Your task to perform on an android device: toggle airplane mode Image 0: 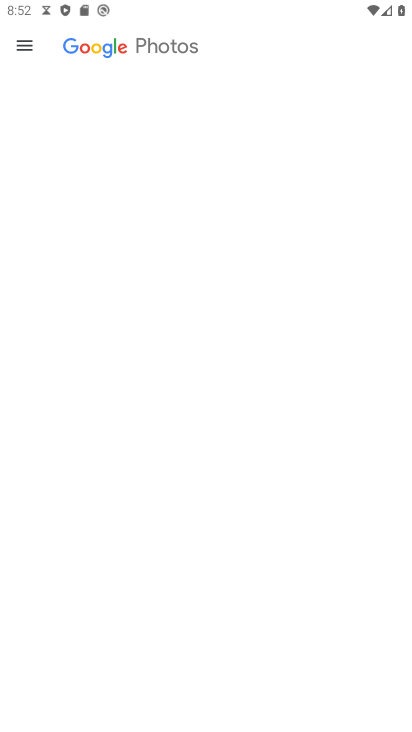
Step 0: drag from (240, 632) to (231, 322)
Your task to perform on an android device: toggle airplane mode Image 1: 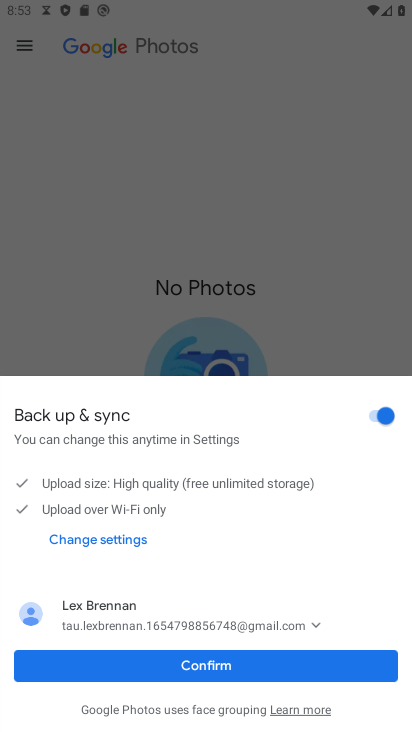
Step 1: press home button
Your task to perform on an android device: toggle airplane mode Image 2: 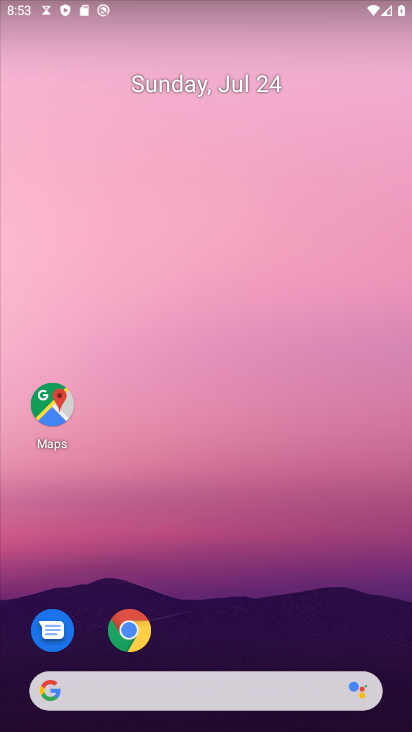
Step 2: drag from (251, 650) to (227, 110)
Your task to perform on an android device: toggle airplane mode Image 3: 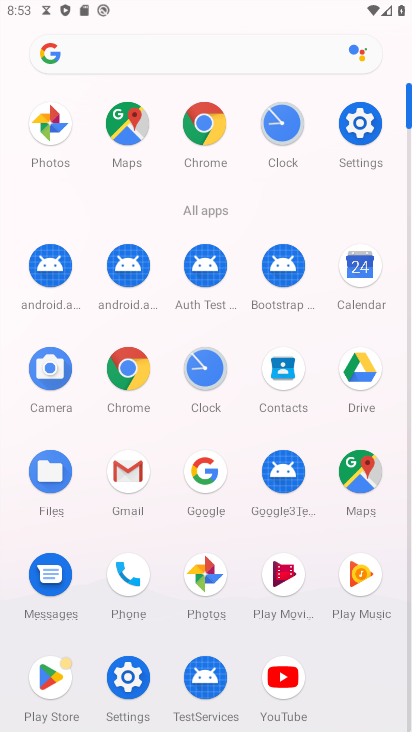
Step 3: click (369, 133)
Your task to perform on an android device: toggle airplane mode Image 4: 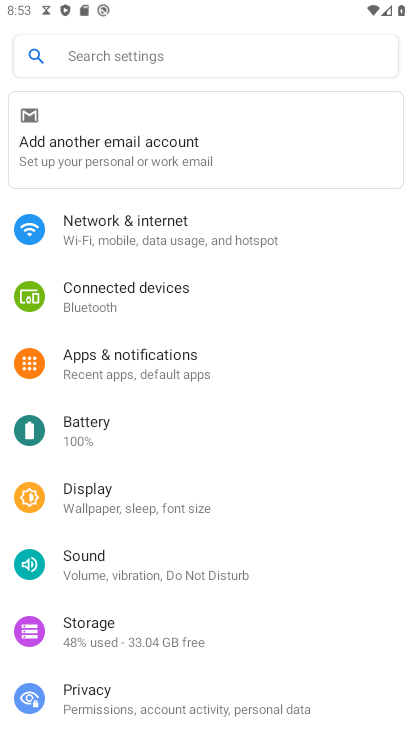
Step 4: click (238, 250)
Your task to perform on an android device: toggle airplane mode Image 5: 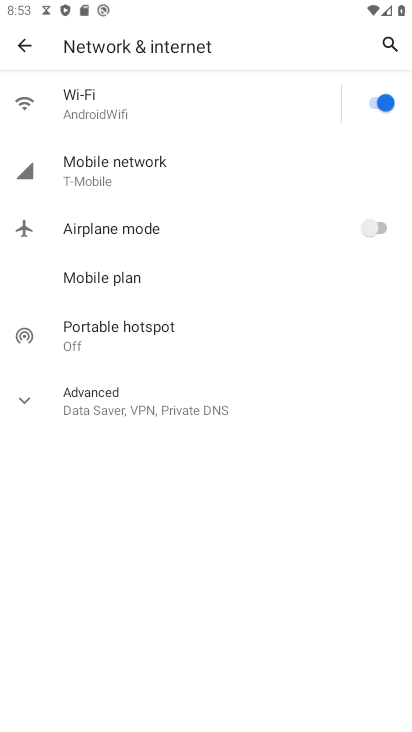
Step 5: click (384, 242)
Your task to perform on an android device: toggle airplane mode Image 6: 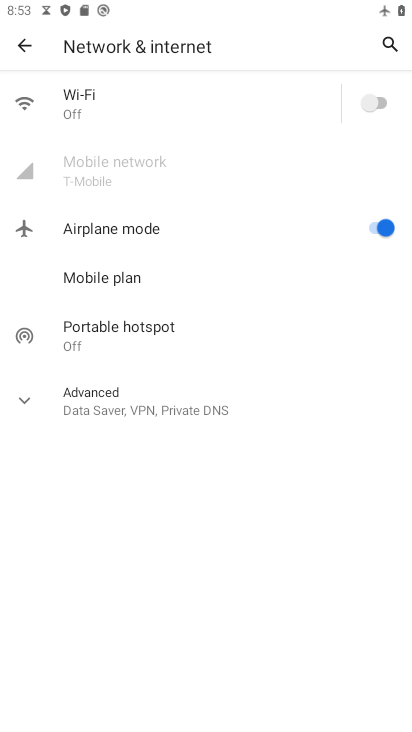
Step 6: task complete